Your task to perform on an android device: stop showing notifications on the lock screen Image 0: 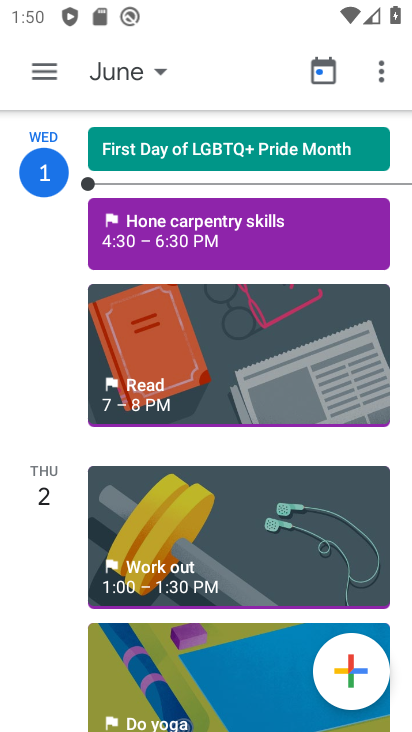
Step 0: press home button
Your task to perform on an android device: stop showing notifications on the lock screen Image 1: 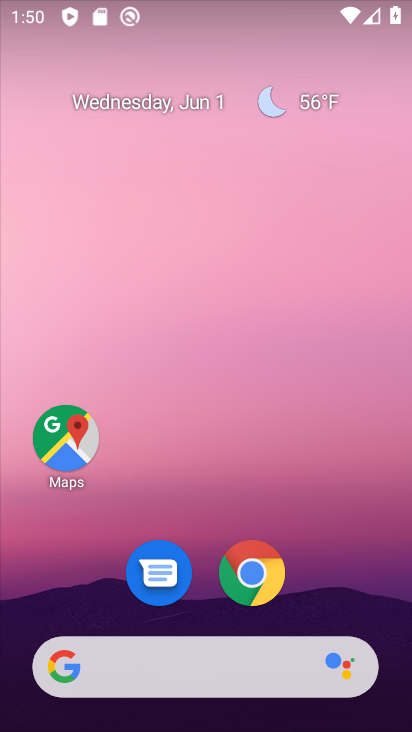
Step 1: drag from (357, 577) to (280, 11)
Your task to perform on an android device: stop showing notifications on the lock screen Image 2: 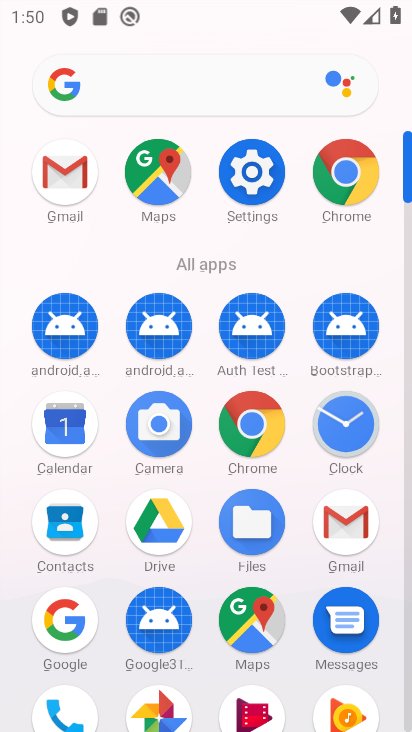
Step 2: click (260, 161)
Your task to perform on an android device: stop showing notifications on the lock screen Image 3: 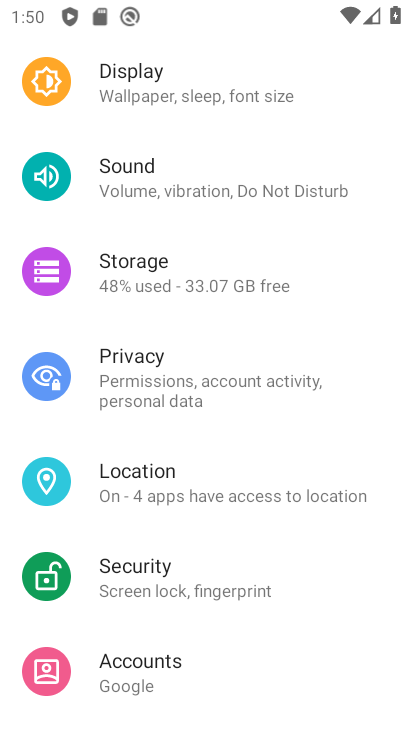
Step 3: drag from (249, 269) to (290, 640)
Your task to perform on an android device: stop showing notifications on the lock screen Image 4: 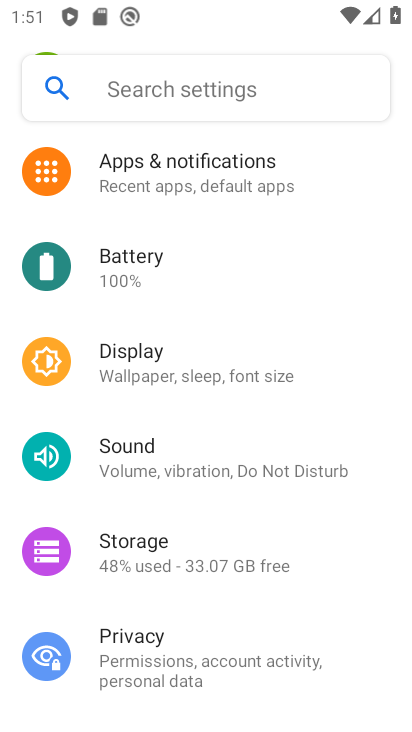
Step 4: click (203, 164)
Your task to perform on an android device: stop showing notifications on the lock screen Image 5: 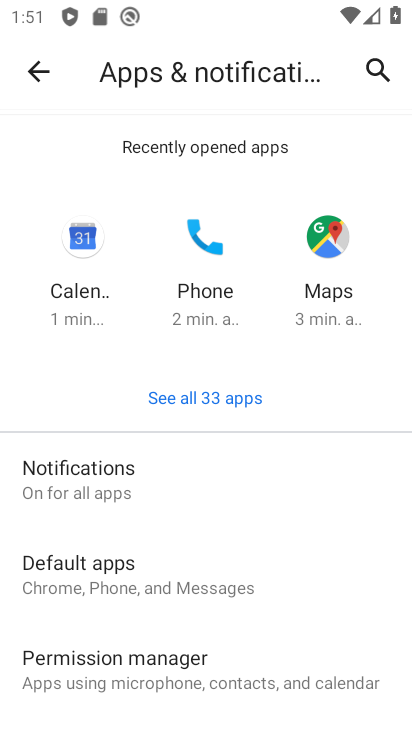
Step 5: click (73, 494)
Your task to perform on an android device: stop showing notifications on the lock screen Image 6: 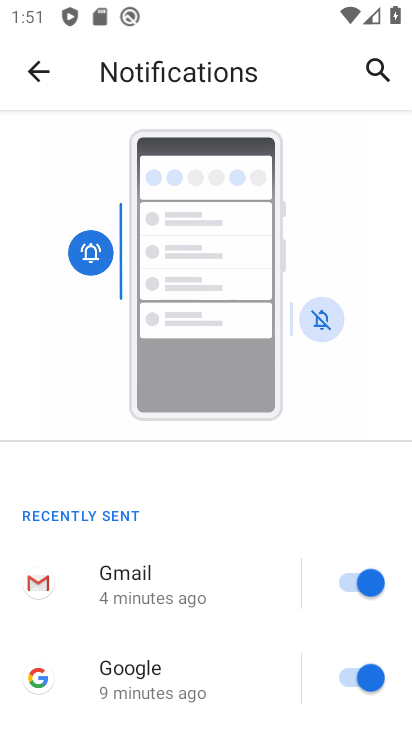
Step 6: drag from (152, 590) to (180, 252)
Your task to perform on an android device: stop showing notifications on the lock screen Image 7: 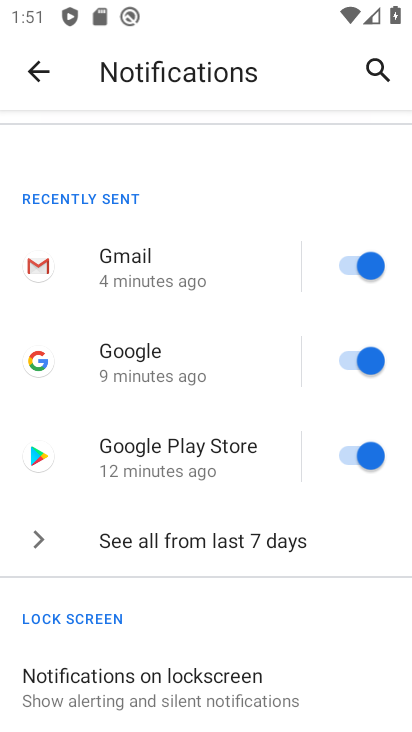
Step 7: click (203, 673)
Your task to perform on an android device: stop showing notifications on the lock screen Image 8: 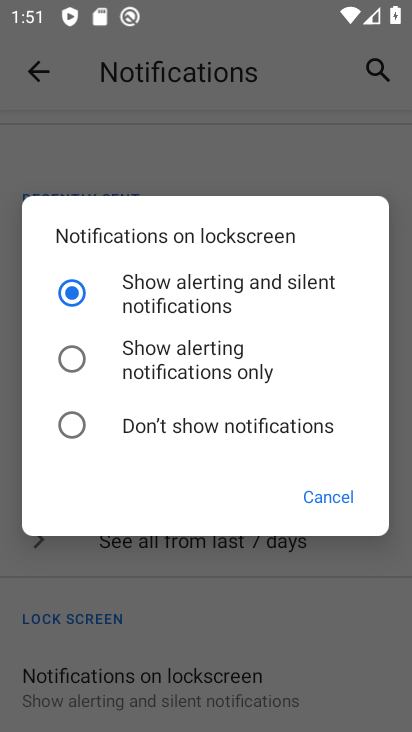
Step 8: click (75, 421)
Your task to perform on an android device: stop showing notifications on the lock screen Image 9: 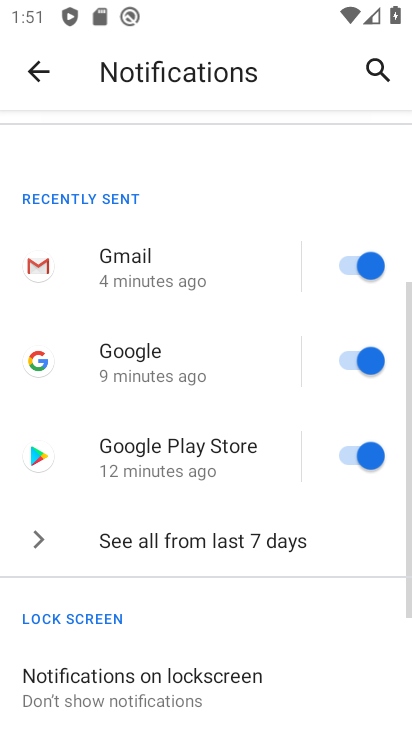
Step 9: task complete